Your task to perform on an android device: make emails show in primary in the gmail app Image 0: 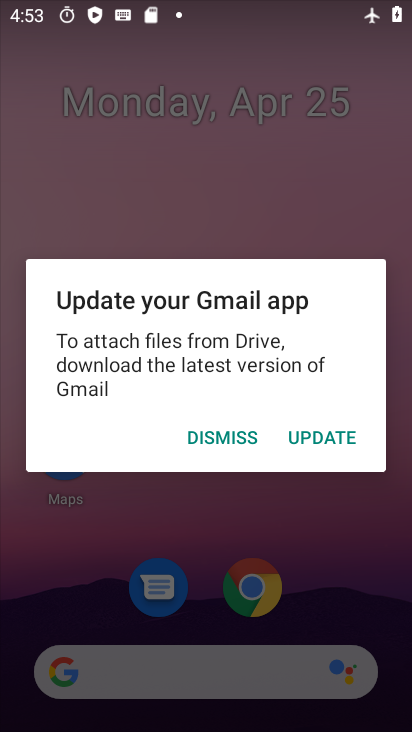
Step 0: press home button
Your task to perform on an android device: make emails show in primary in the gmail app Image 1: 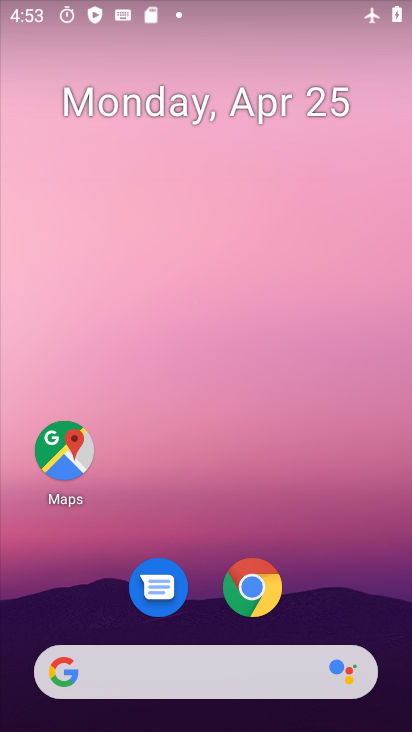
Step 1: drag from (326, 565) to (283, 85)
Your task to perform on an android device: make emails show in primary in the gmail app Image 2: 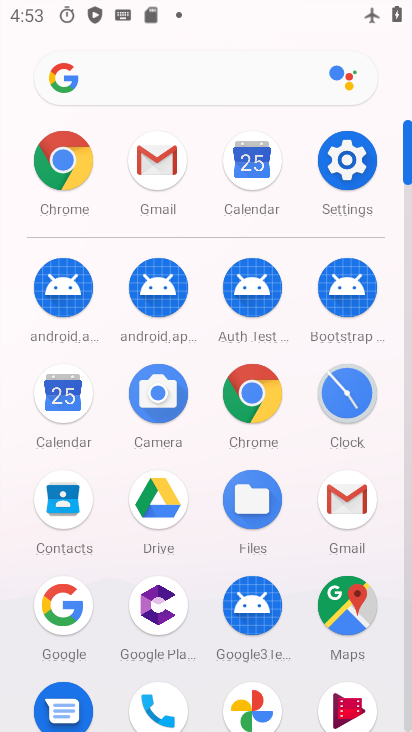
Step 2: click (353, 504)
Your task to perform on an android device: make emails show in primary in the gmail app Image 3: 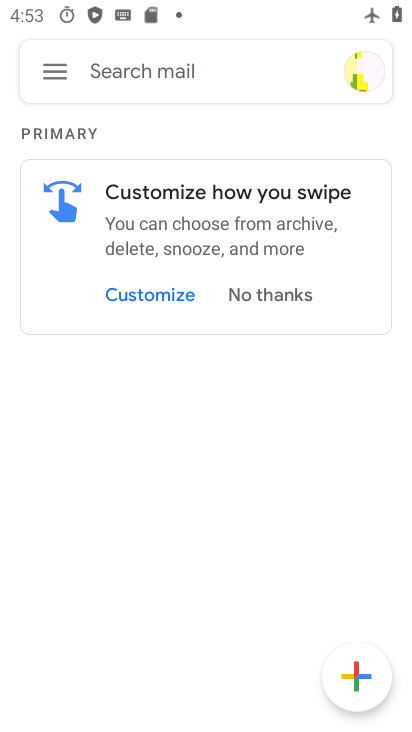
Step 3: click (49, 66)
Your task to perform on an android device: make emails show in primary in the gmail app Image 4: 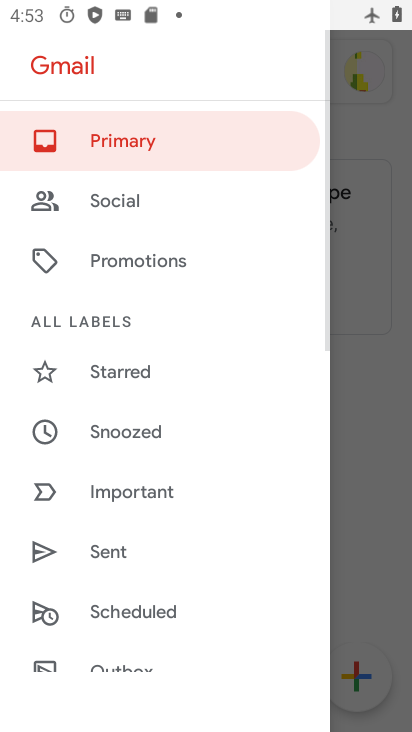
Step 4: drag from (130, 593) to (154, 149)
Your task to perform on an android device: make emails show in primary in the gmail app Image 5: 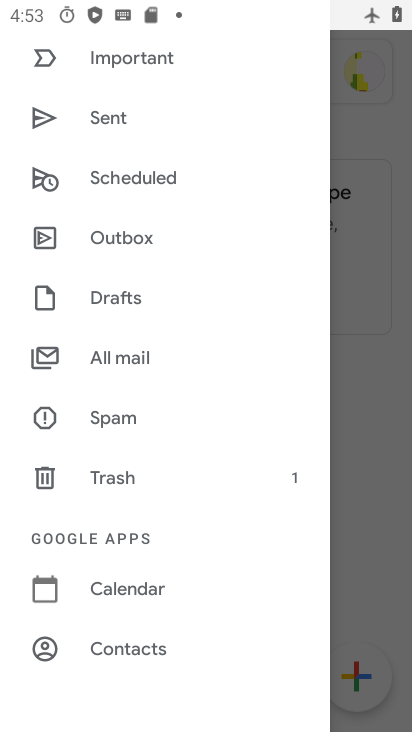
Step 5: drag from (140, 548) to (272, 182)
Your task to perform on an android device: make emails show in primary in the gmail app Image 6: 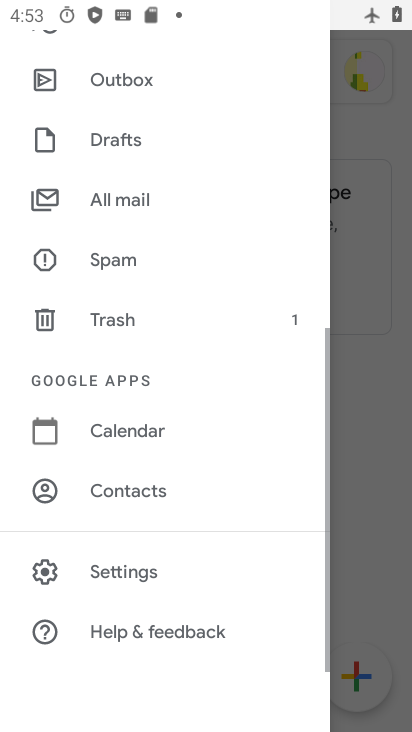
Step 6: click (116, 569)
Your task to perform on an android device: make emails show in primary in the gmail app Image 7: 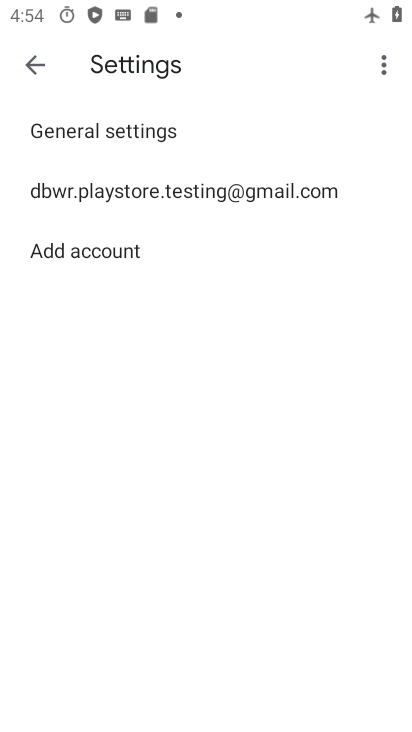
Step 7: click (175, 200)
Your task to perform on an android device: make emails show in primary in the gmail app Image 8: 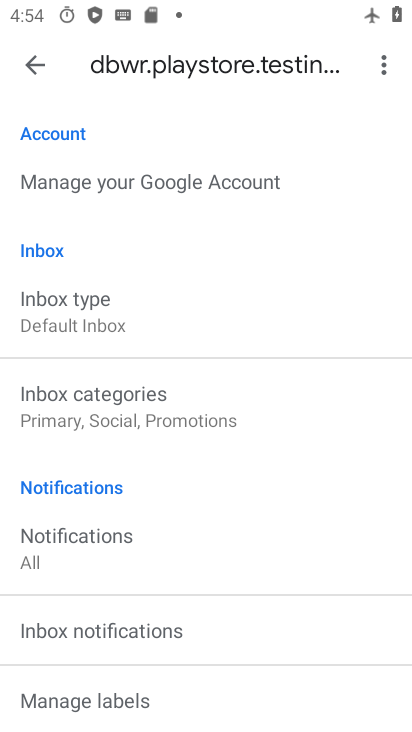
Step 8: click (101, 410)
Your task to perform on an android device: make emails show in primary in the gmail app Image 9: 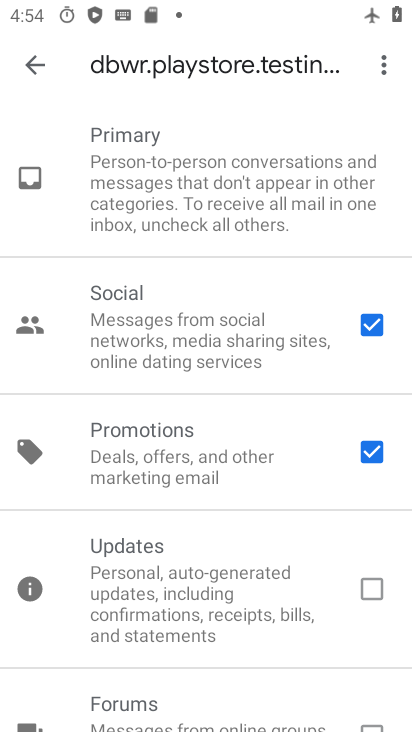
Step 9: task complete